Your task to perform on an android device: toggle notifications settings in the gmail app Image 0: 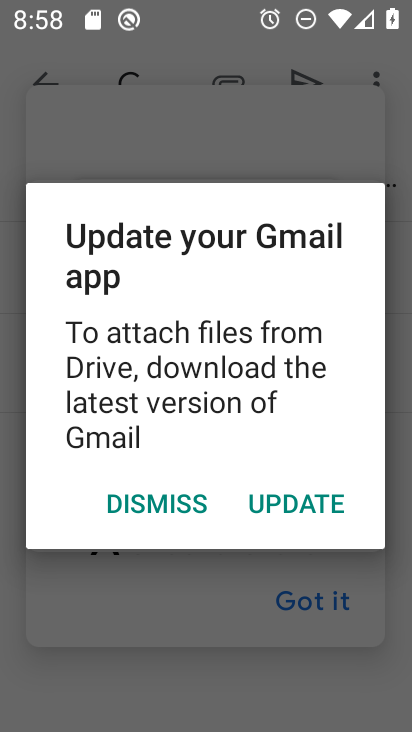
Step 0: press home button
Your task to perform on an android device: toggle notifications settings in the gmail app Image 1: 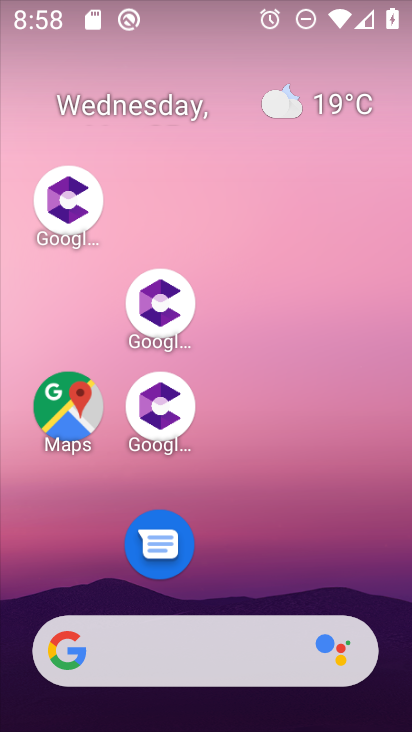
Step 1: drag from (300, 548) to (225, 121)
Your task to perform on an android device: toggle notifications settings in the gmail app Image 2: 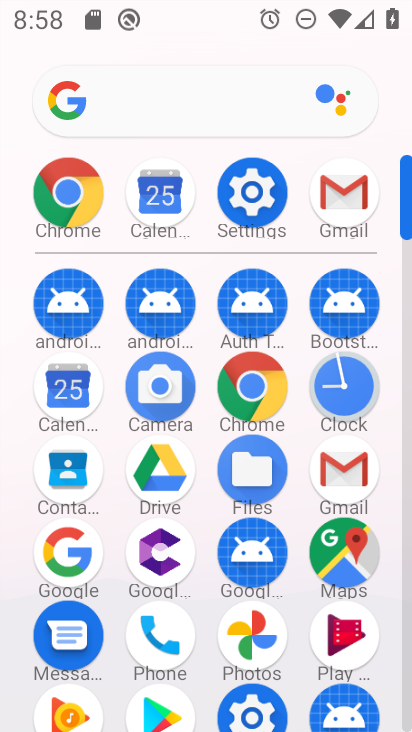
Step 2: click (346, 198)
Your task to perform on an android device: toggle notifications settings in the gmail app Image 3: 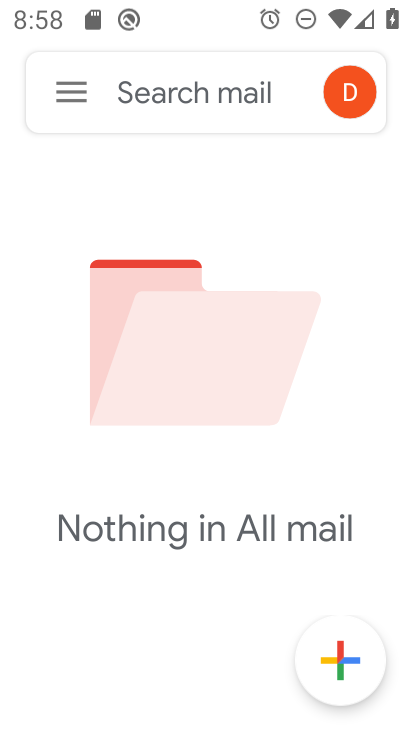
Step 3: click (57, 94)
Your task to perform on an android device: toggle notifications settings in the gmail app Image 4: 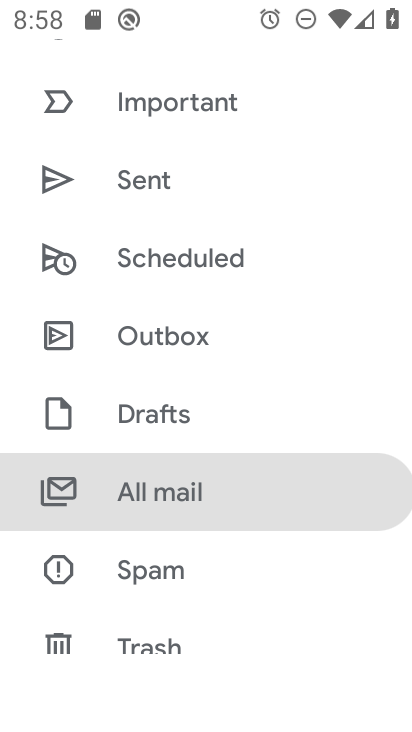
Step 4: drag from (214, 584) to (198, 166)
Your task to perform on an android device: toggle notifications settings in the gmail app Image 5: 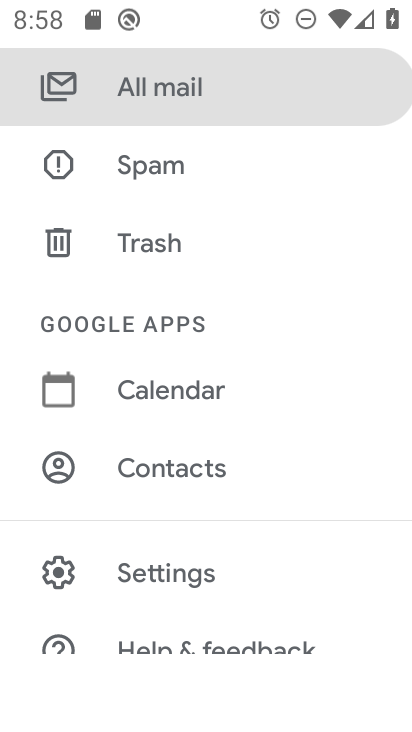
Step 5: click (146, 574)
Your task to perform on an android device: toggle notifications settings in the gmail app Image 6: 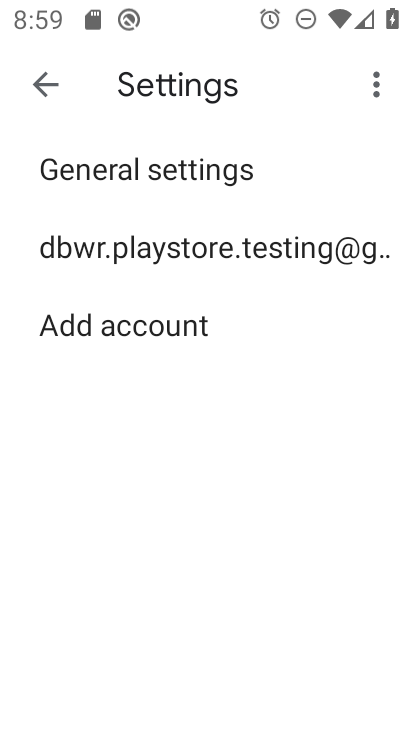
Step 6: click (90, 165)
Your task to perform on an android device: toggle notifications settings in the gmail app Image 7: 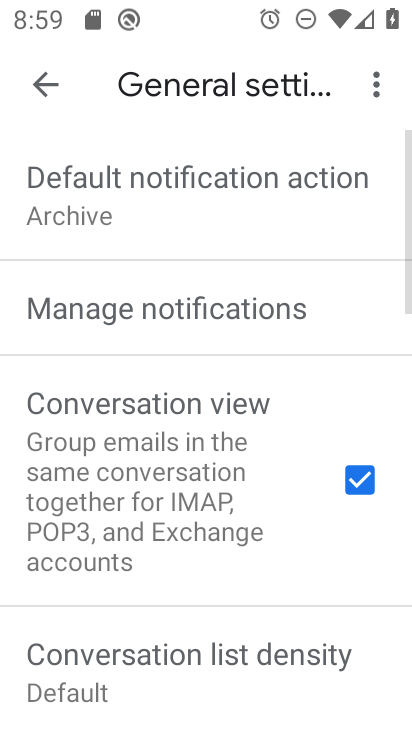
Step 7: click (99, 317)
Your task to perform on an android device: toggle notifications settings in the gmail app Image 8: 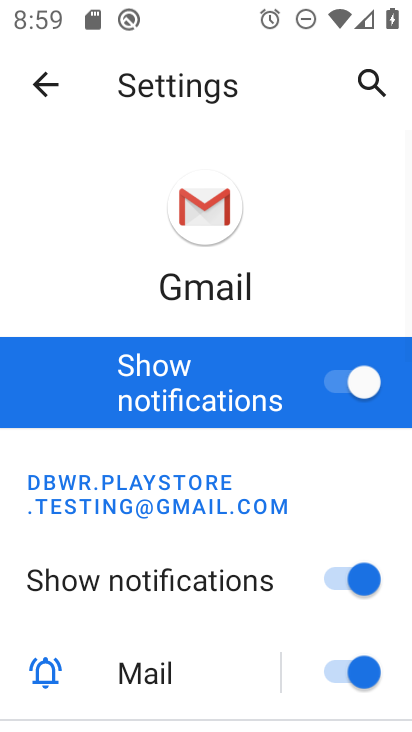
Step 8: click (354, 388)
Your task to perform on an android device: toggle notifications settings in the gmail app Image 9: 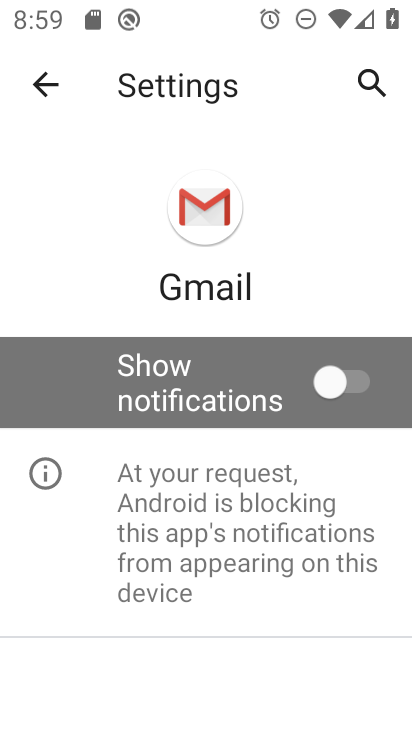
Step 9: task complete